Your task to perform on an android device: turn on location history Image 0: 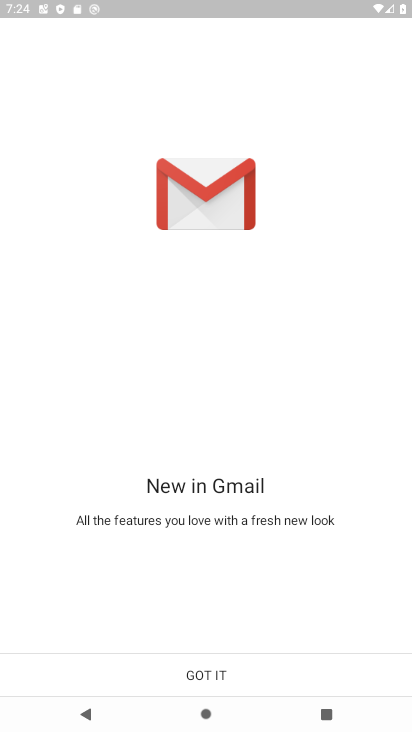
Step 0: press home button
Your task to perform on an android device: turn on location history Image 1: 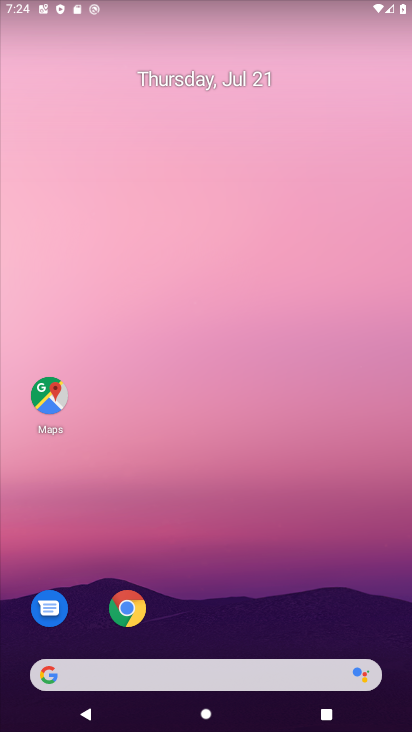
Step 1: drag from (169, 672) to (254, 182)
Your task to perform on an android device: turn on location history Image 2: 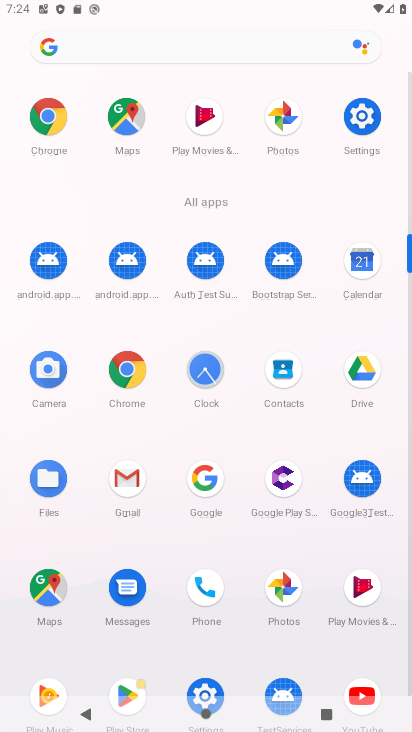
Step 2: click (365, 117)
Your task to perform on an android device: turn on location history Image 3: 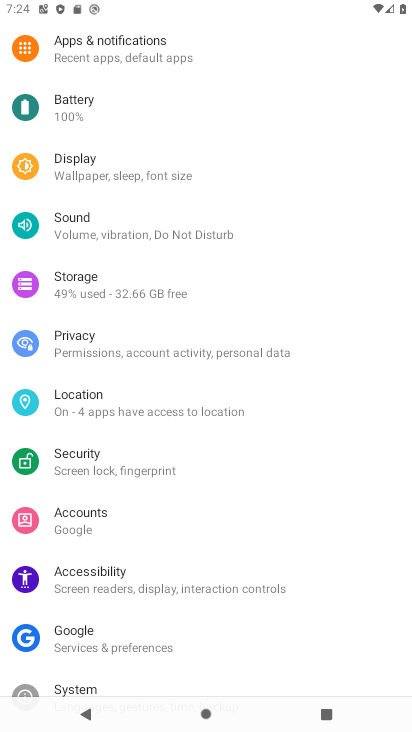
Step 3: click (121, 416)
Your task to perform on an android device: turn on location history Image 4: 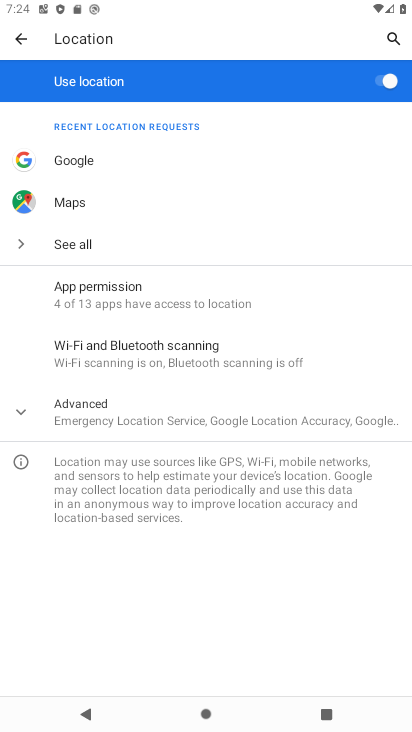
Step 4: click (162, 420)
Your task to perform on an android device: turn on location history Image 5: 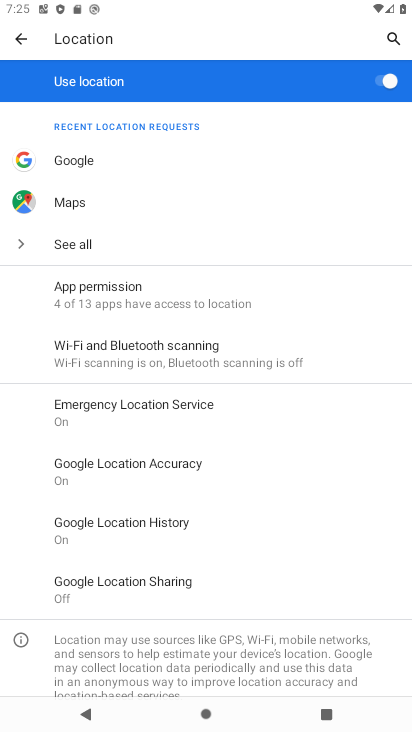
Step 5: task complete